Your task to perform on an android device: delete browsing data in the chrome app Image 0: 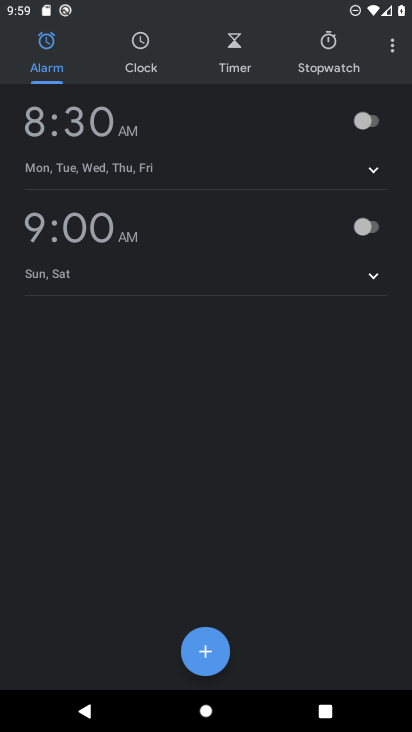
Step 0: press back button
Your task to perform on an android device: delete browsing data in the chrome app Image 1: 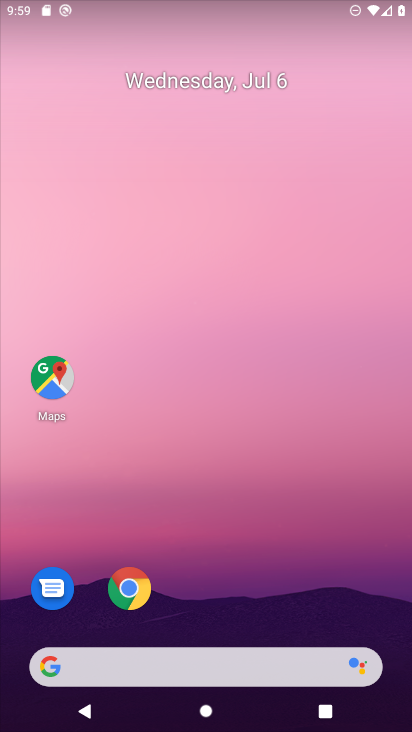
Step 1: click (130, 586)
Your task to perform on an android device: delete browsing data in the chrome app Image 2: 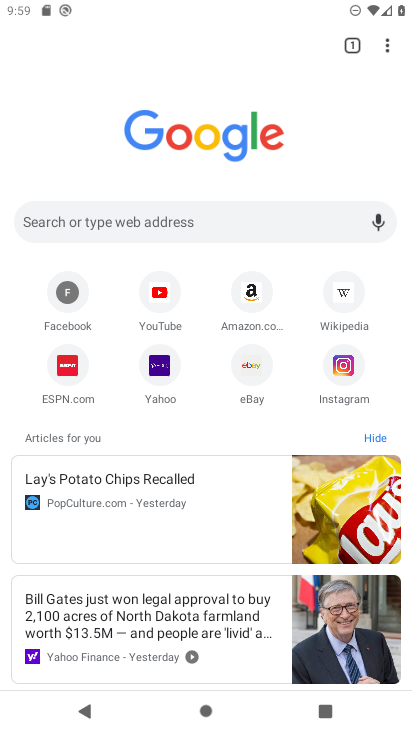
Step 2: drag from (384, 46) to (251, 253)
Your task to perform on an android device: delete browsing data in the chrome app Image 3: 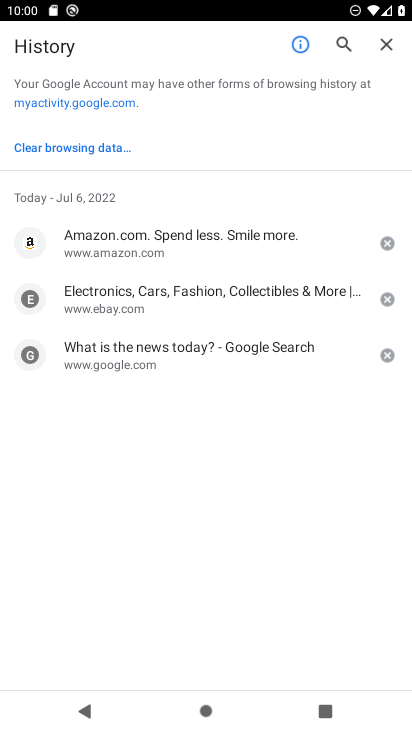
Step 3: click (33, 145)
Your task to perform on an android device: delete browsing data in the chrome app Image 4: 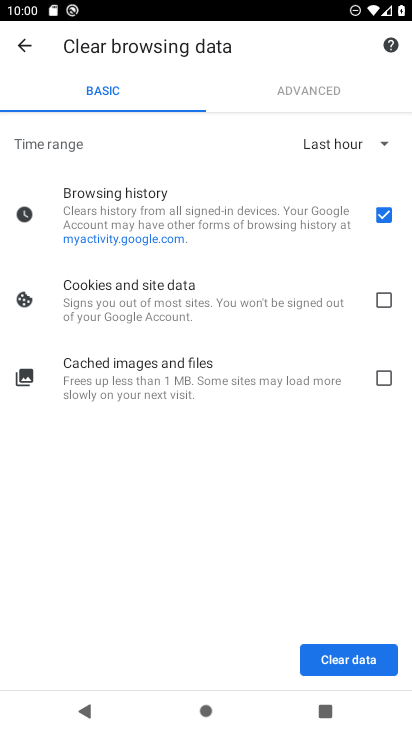
Step 4: click (388, 298)
Your task to perform on an android device: delete browsing data in the chrome app Image 5: 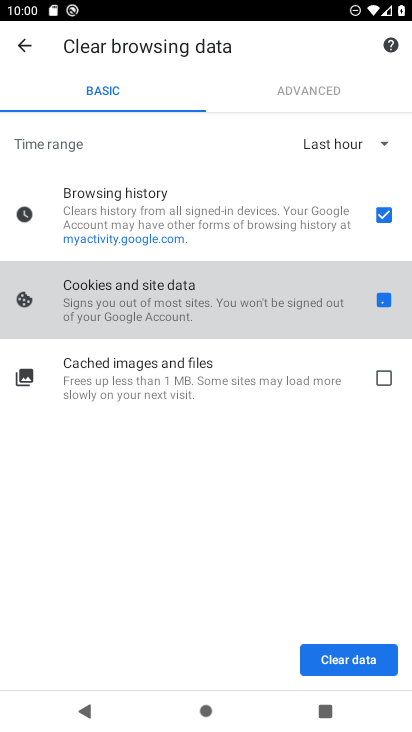
Step 5: click (386, 380)
Your task to perform on an android device: delete browsing data in the chrome app Image 6: 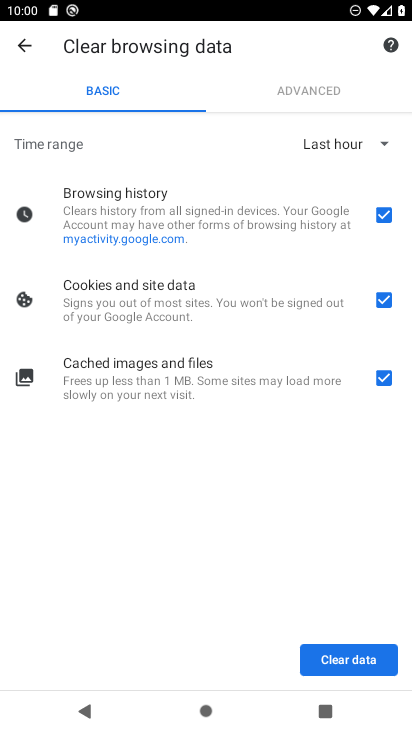
Step 6: click (345, 645)
Your task to perform on an android device: delete browsing data in the chrome app Image 7: 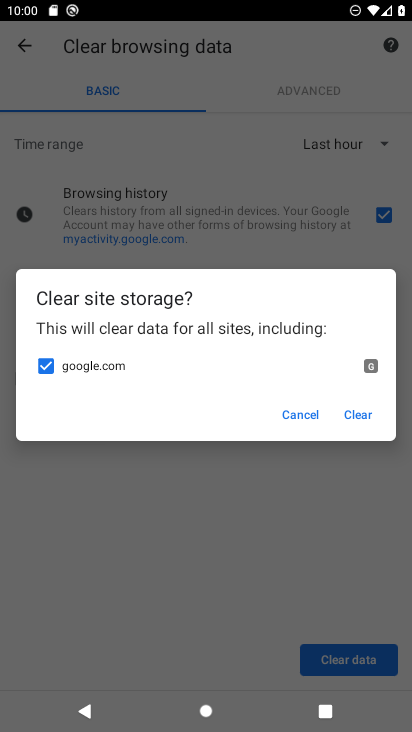
Step 7: click (358, 414)
Your task to perform on an android device: delete browsing data in the chrome app Image 8: 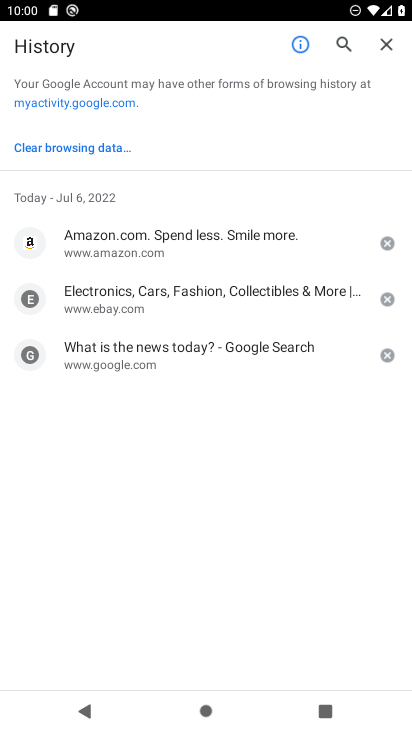
Step 8: task complete